Your task to perform on an android device: Open Google Chrome and click the shortcut for Amazon.com Image 0: 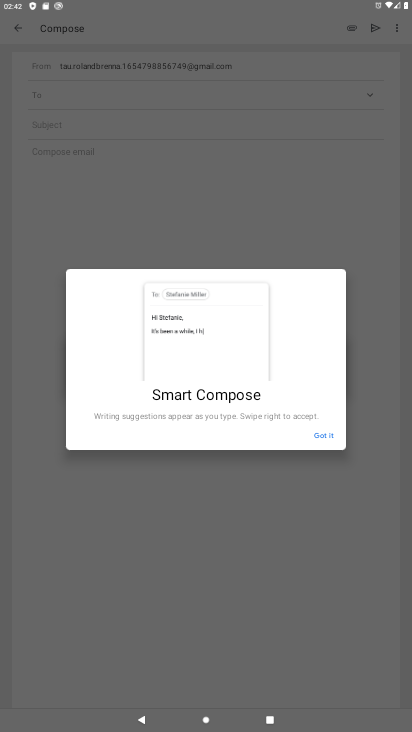
Step 0: press home button
Your task to perform on an android device: Open Google Chrome and click the shortcut for Amazon.com Image 1: 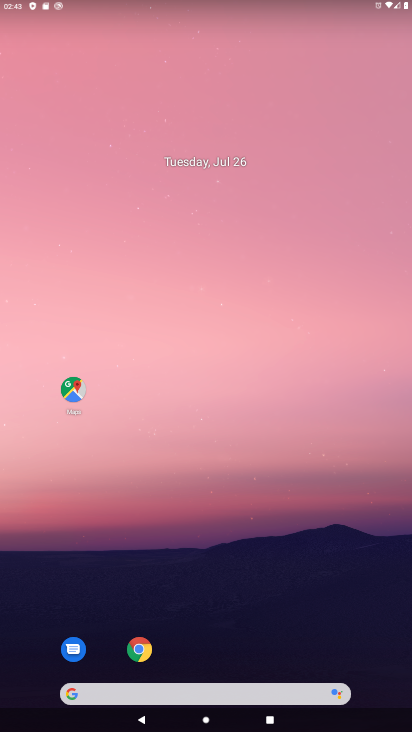
Step 1: click (139, 649)
Your task to perform on an android device: Open Google Chrome and click the shortcut for Amazon.com Image 2: 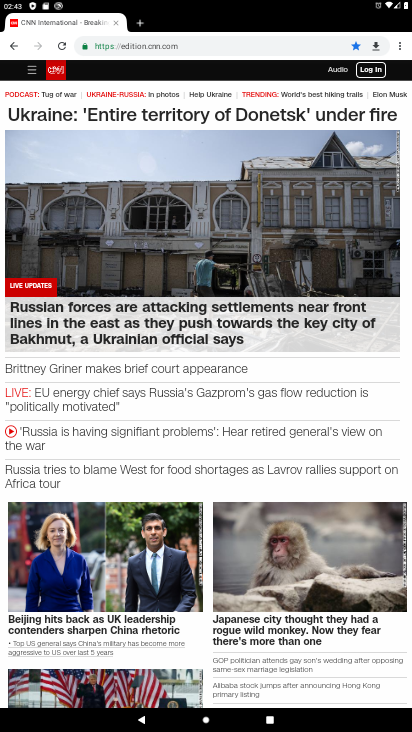
Step 2: click (400, 46)
Your task to perform on an android device: Open Google Chrome and click the shortcut for Amazon.com Image 3: 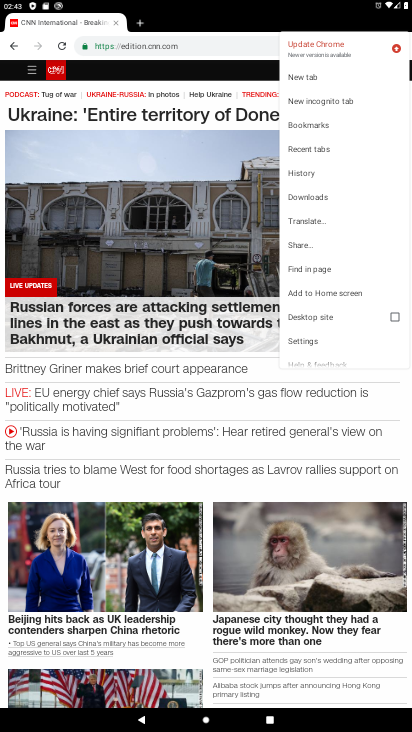
Step 3: click (216, 43)
Your task to perform on an android device: Open Google Chrome and click the shortcut for Amazon.com Image 4: 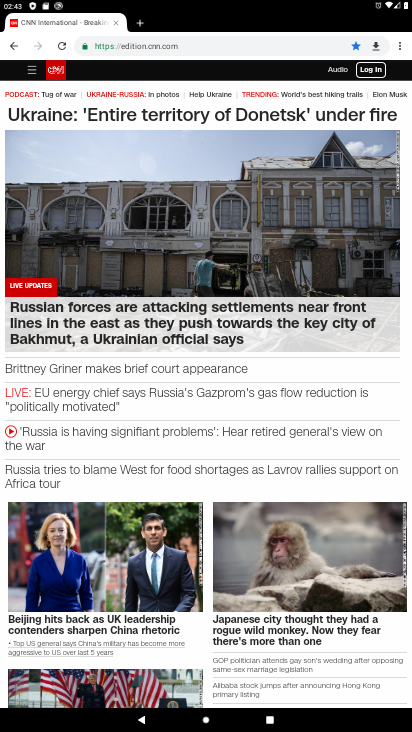
Step 4: click (216, 43)
Your task to perform on an android device: Open Google Chrome and click the shortcut for Amazon.com Image 5: 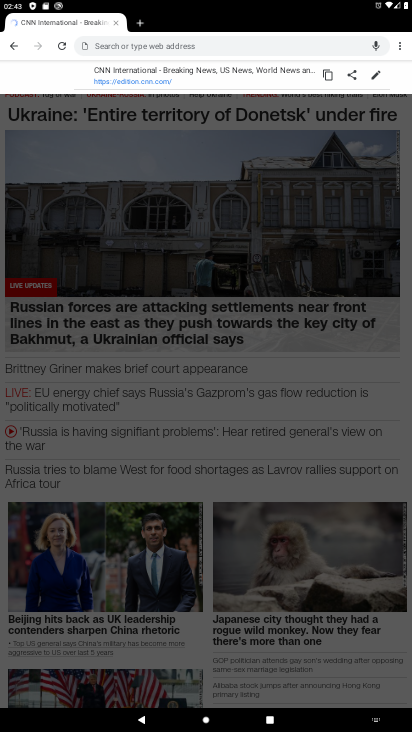
Step 5: type "Amazon.com"
Your task to perform on an android device: Open Google Chrome and click the shortcut for Amazon.com Image 6: 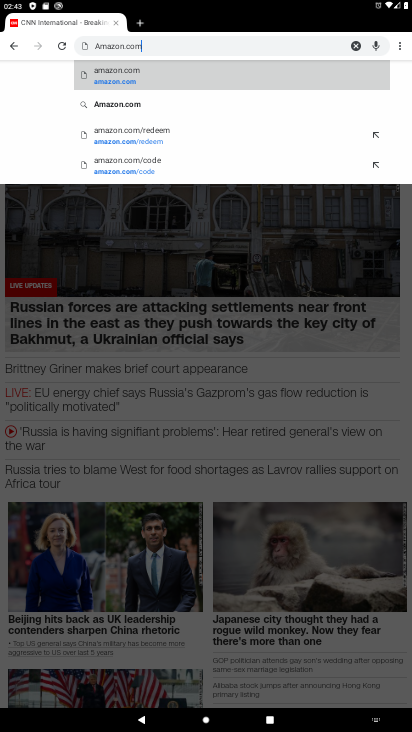
Step 6: click (130, 100)
Your task to perform on an android device: Open Google Chrome and click the shortcut for Amazon.com Image 7: 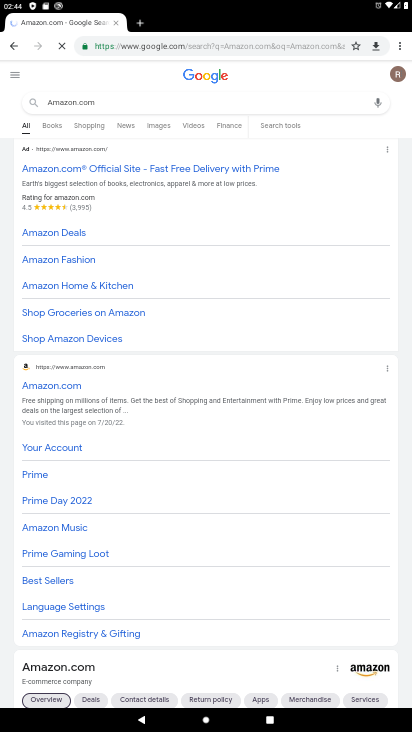
Step 7: click (70, 388)
Your task to perform on an android device: Open Google Chrome and click the shortcut for Amazon.com Image 8: 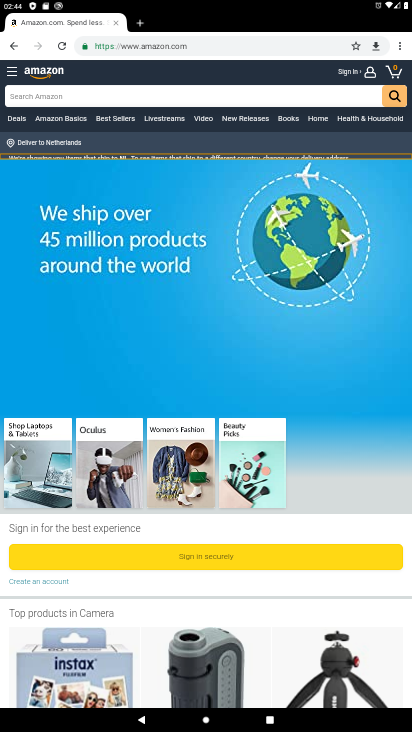
Step 8: click (398, 44)
Your task to perform on an android device: Open Google Chrome and click the shortcut for Amazon.com Image 9: 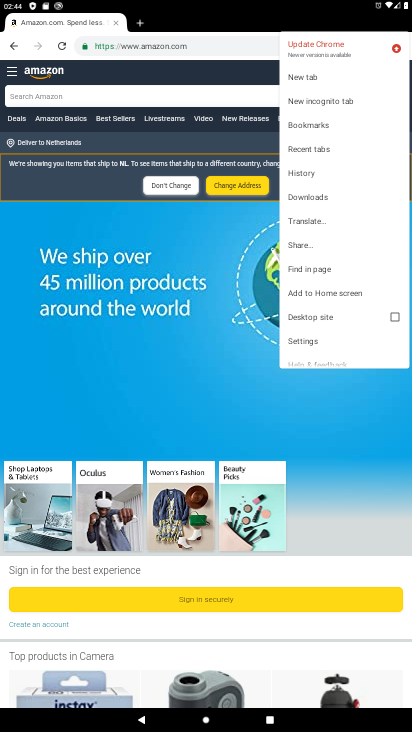
Step 9: click (328, 291)
Your task to perform on an android device: Open Google Chrome and click the shortcut for Amazon.com Image 10: 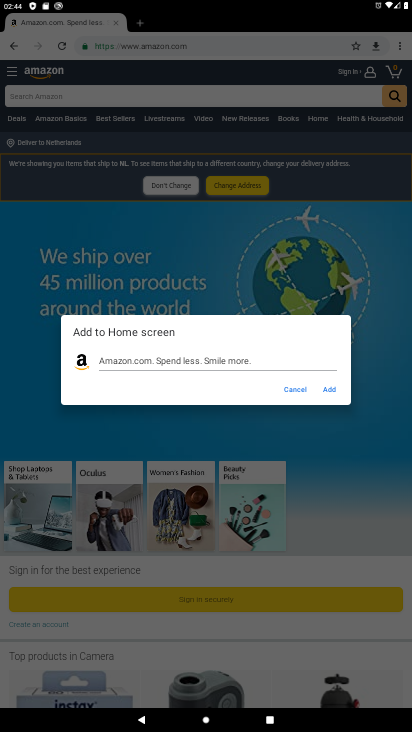
Step 10: click (331, 389)
Your task to perform on an android device: Open Google Chrome and click the shortcut for Amazon.com Image 11: 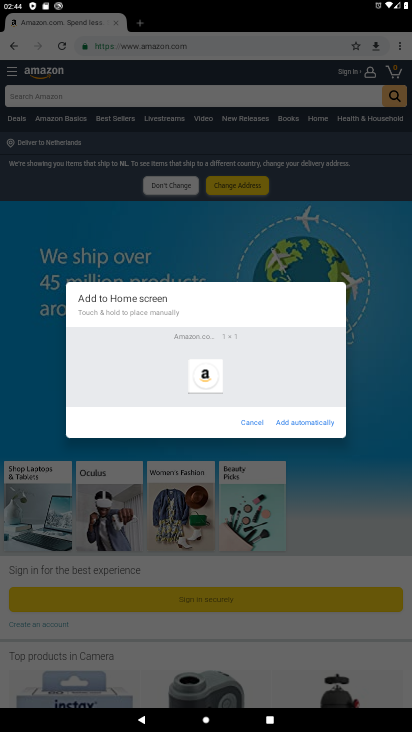
Step 11: click (317, 421)
Your task to perform on an android device: Open Google Chrome and click the shortcut for Amazon.com Image 12: 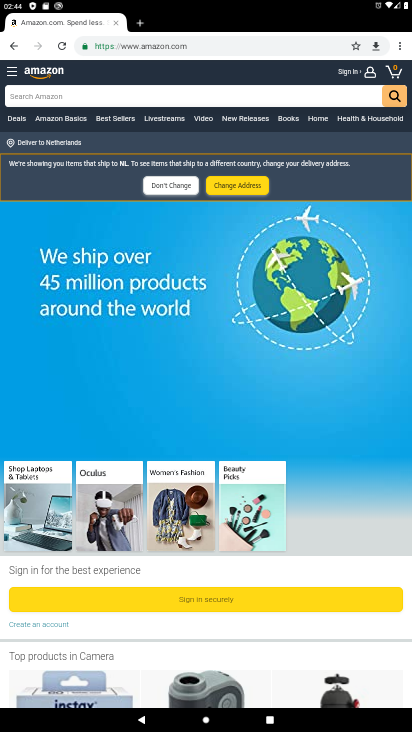
Step 12: task complete